Your task to perform on an android device: change the clock display to digital Image 0: 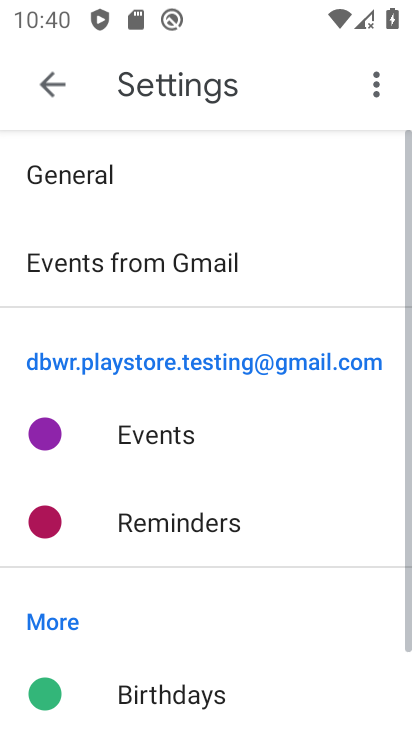
Step 0: drag from (234, 601) to (233, 395)
Your task to perform on an android device: change the clock display to digital Image 1: 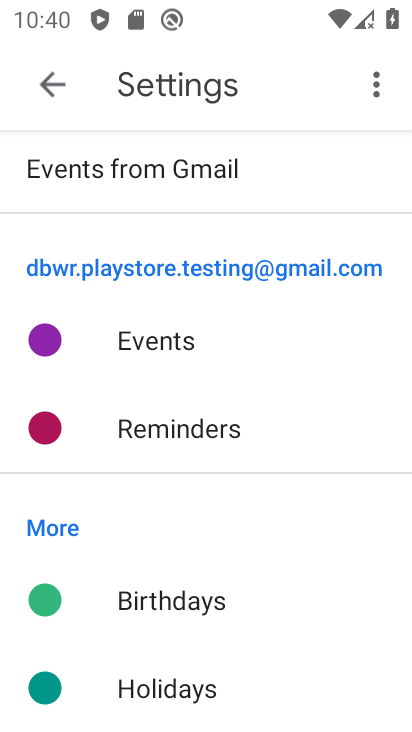
Step 1: press home button
Your task to perform on an android device: change the clock display to digital Image 2: 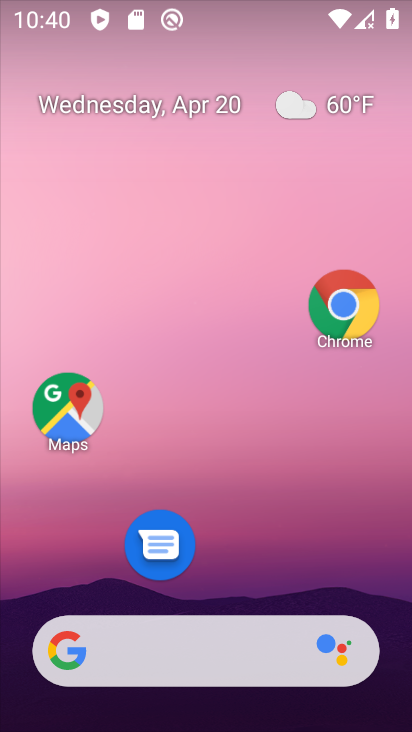
Step 2: drag from (302, 575) to (311, 162)
Your task to perform on an android device: change the clock display to digital Image 3: 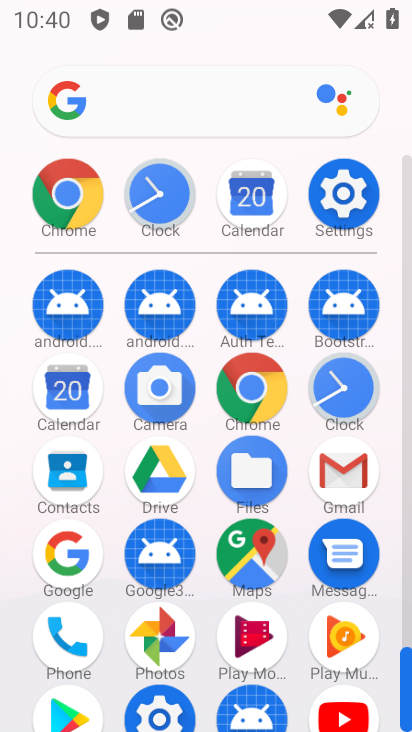
Step 3: click (359, 397)
Your task to perform on an android device: change the clock display to digital Image 4: 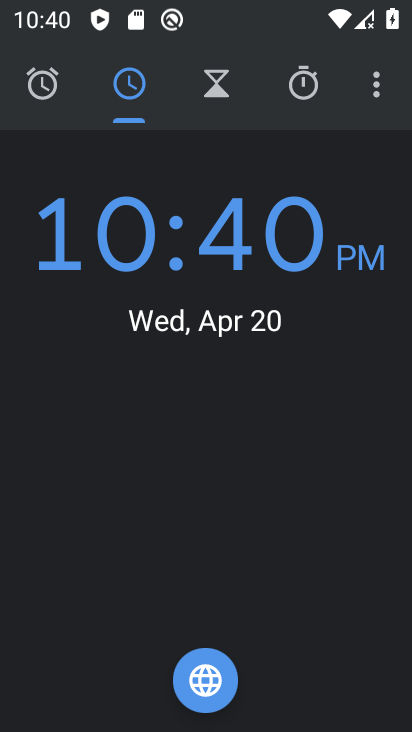
Step 4: click (375, 87)
Your task to perform on an android device: change the clock display to digital Image 5: 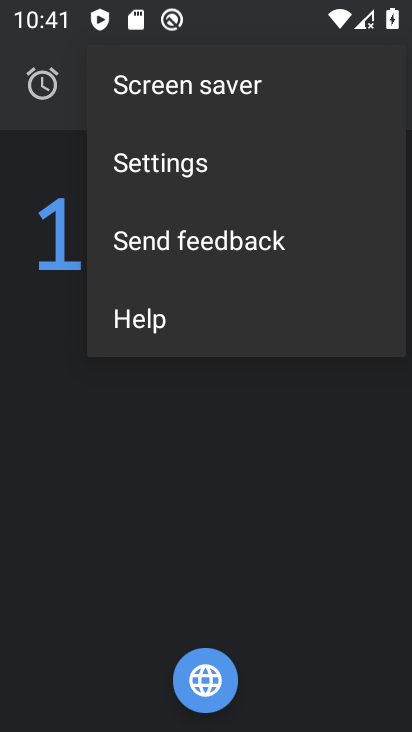
Step 5: click (224, 187)
Your task to perform on an android device: change the clock display to digital Image 6: 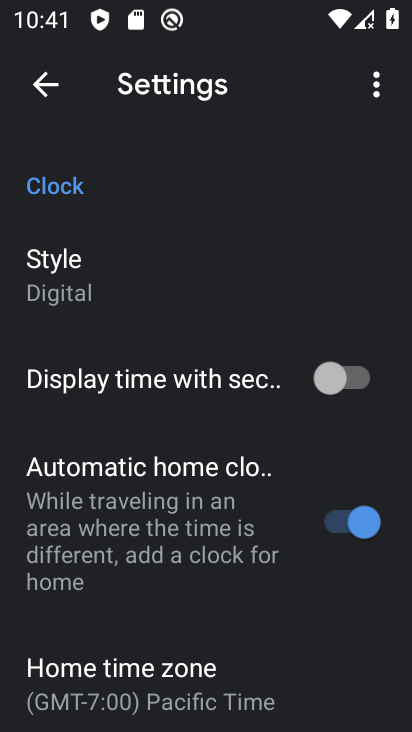
Step 6: click (86, 278)
Your task to perform on an android device: change the clock display to digital Image 7: 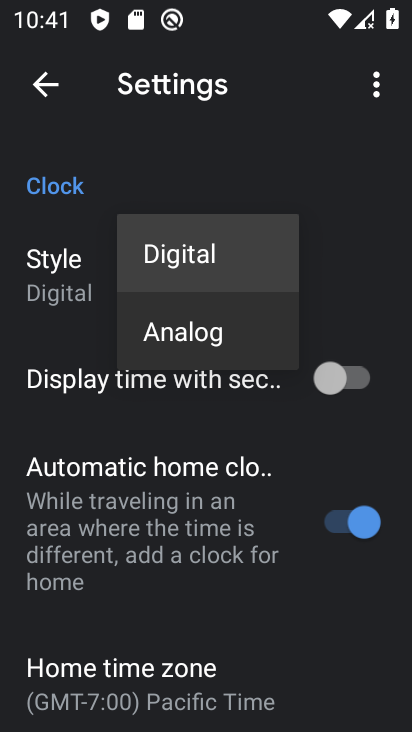
Step 7: task complete